Your task to perform on an android device: Go to Google maps Image 0: 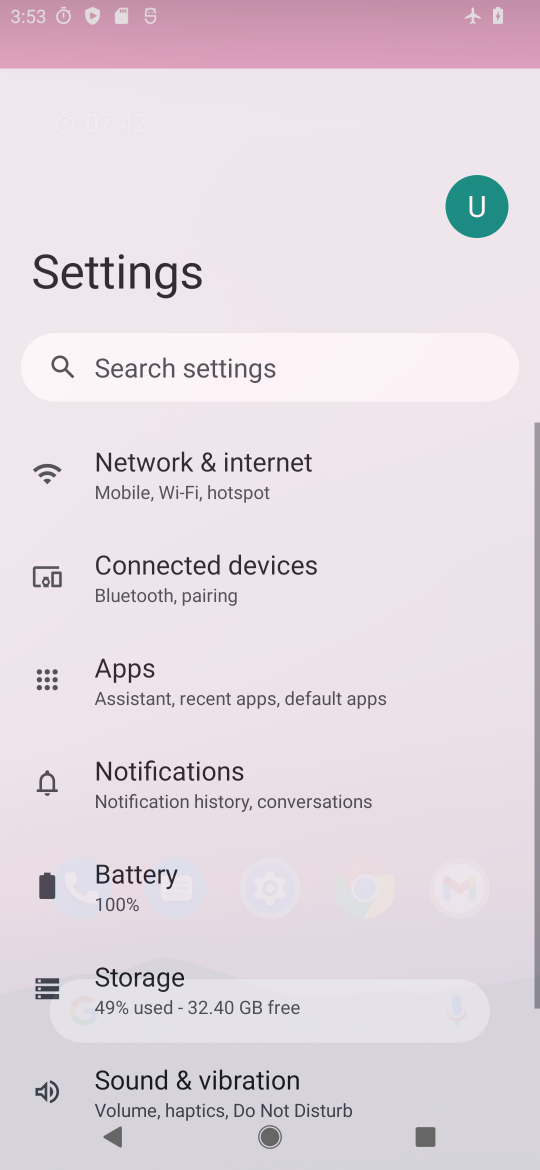
Step 0: press home button
Your task to perform on an android device: Go to Google maps Image 1: 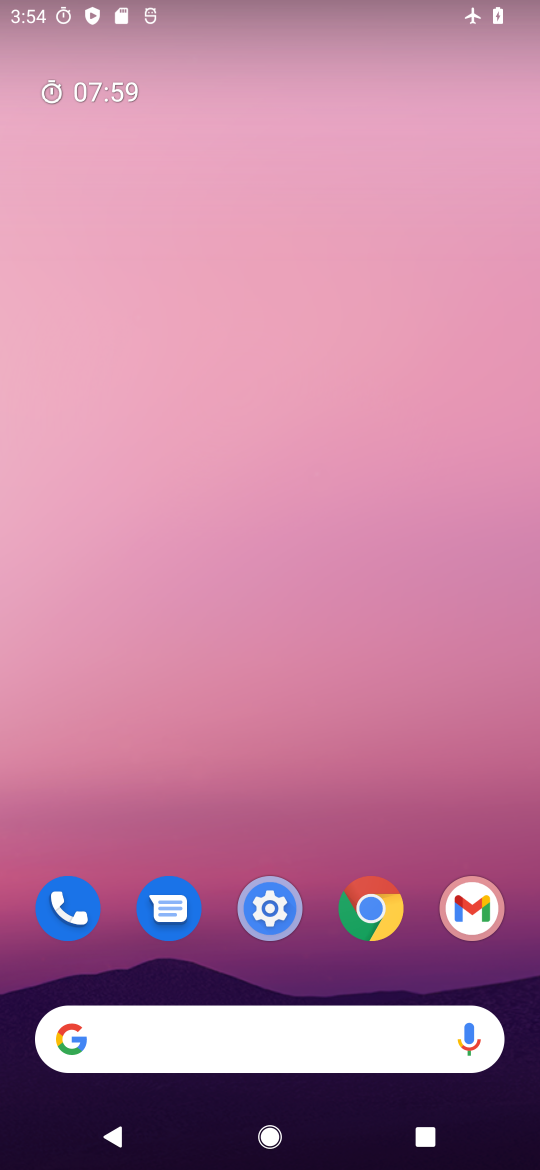
Step 1: drag from (325, 960) to (390, 141)
Your task to perform on an android device: Go to Google maps Image 2: 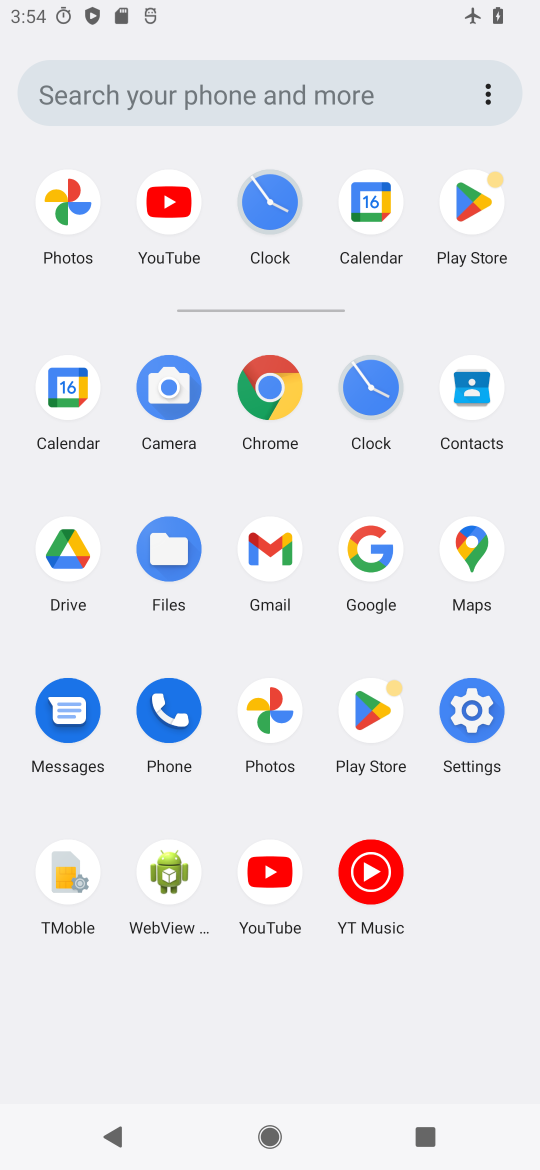
Step 2: click (465, 530)
Your task to perform on an android device: Go to Google maps Image 3: 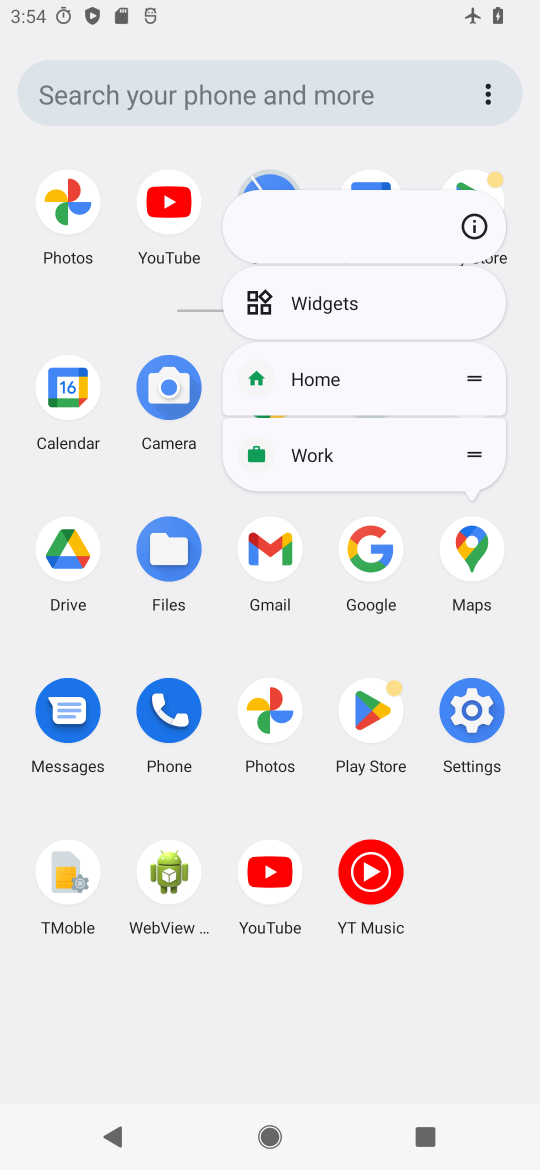
Step 3: click (474, 546)
Your task to perform on an android device: Go to Google maps Image 4: 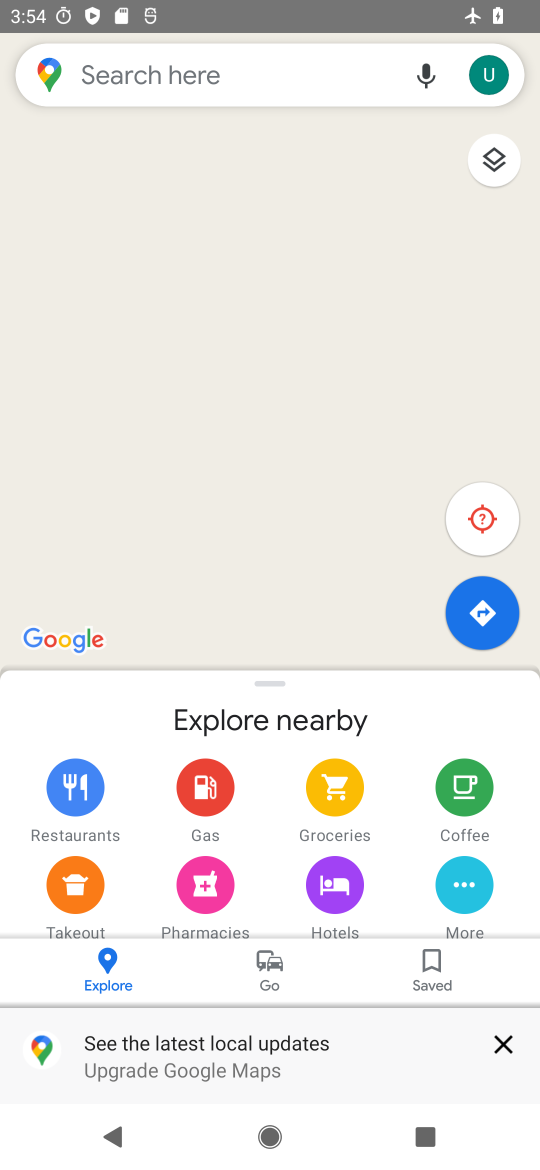
Step 4: task complete